Your task to perform on an android device: turn off location Image 0: 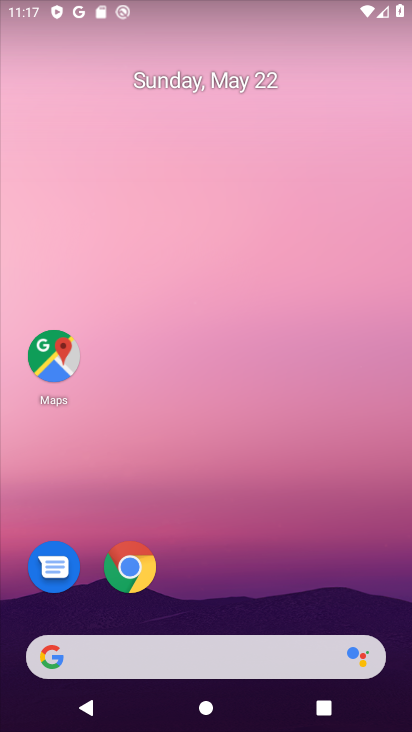
Step 0: drag from (192, 619) to (203, 44)
Your task to perform on an android device: turn off location Image 1: 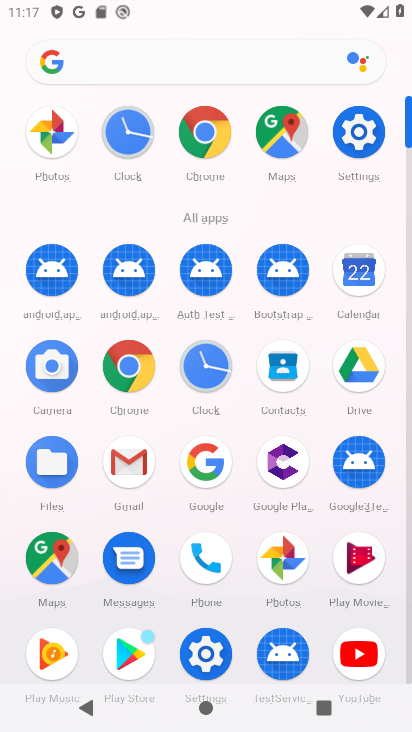
Step 1: click (351, 132)
Your task to perform on an android device: turn off location Image 2: 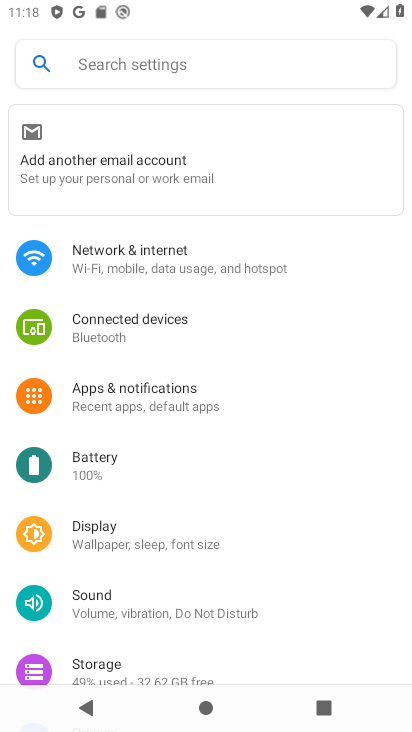
Step 2: drag from (135, 653) to (207, 155)
Your task to perform on an android device: turn off location Image 3: 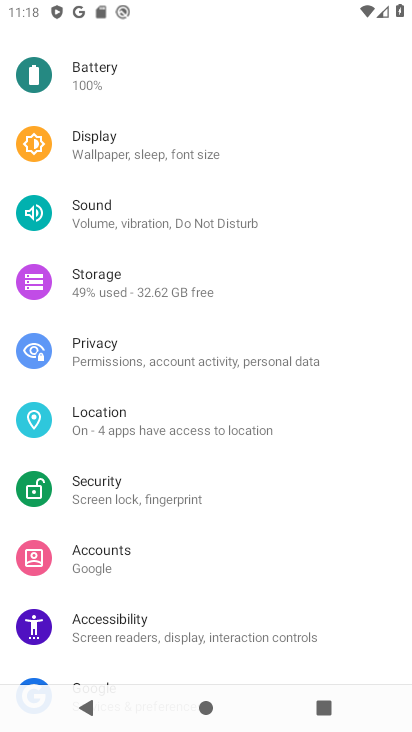
Step 3: drag from (122, 584) to (136, 137)
Your task to perform on an android device: turn off location Image 4: 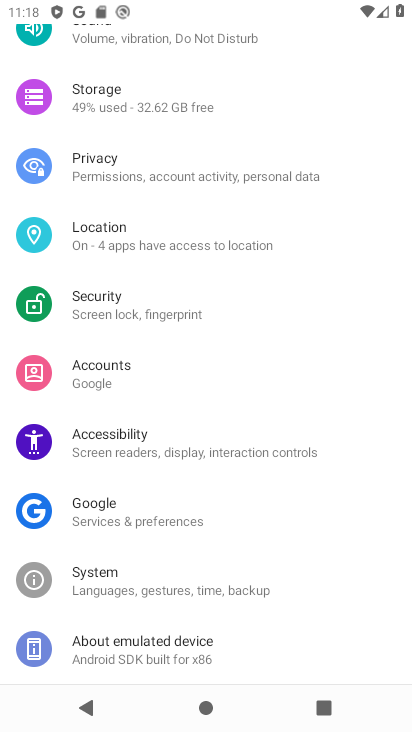
Step 4: click (101, 251)
Your task to perform on an android device: turn off location Image 5: 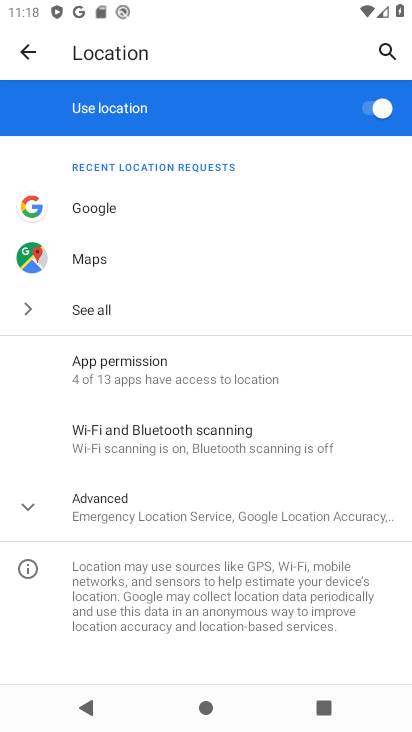
Step 5: click (381, 106)
Your task to perform on an android device: turn off location Image 6: 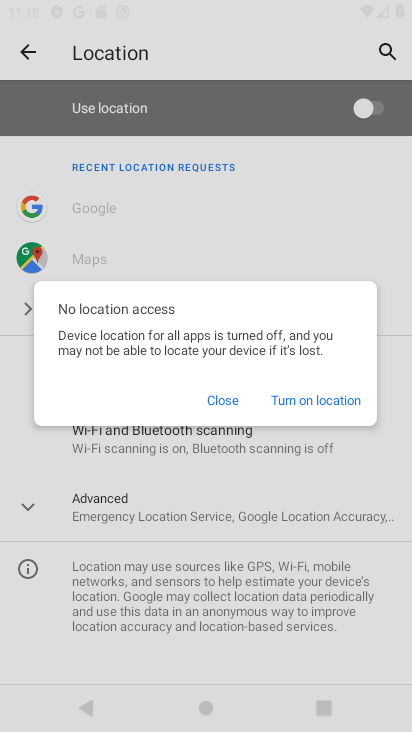
Step 6: task complete